Your task to perform on an android device: empty trash in google photos Image 0: 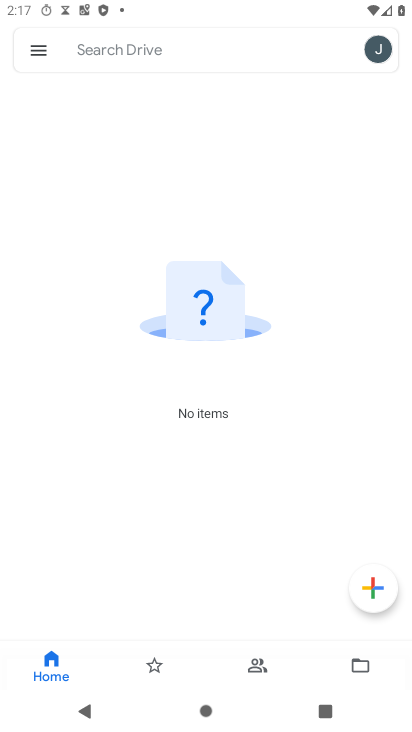
Step 0: press home button
Your task to perform on an android device: empty trash in google photos Image 1: 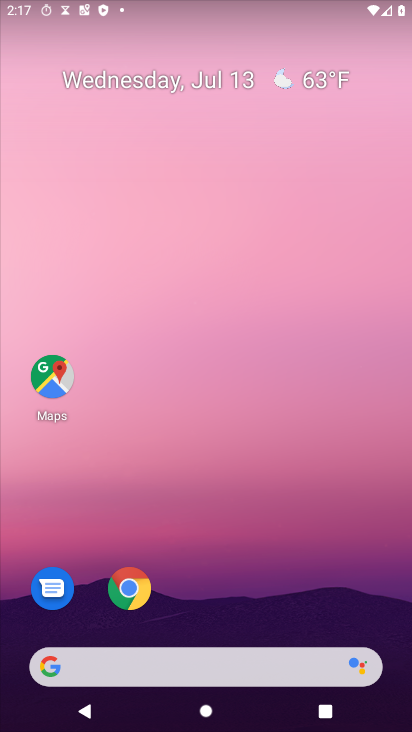
Step 1: drag from (212, 659) to (225, 56)
Your task to perform on an android device: empty trash in google photos Image 2: 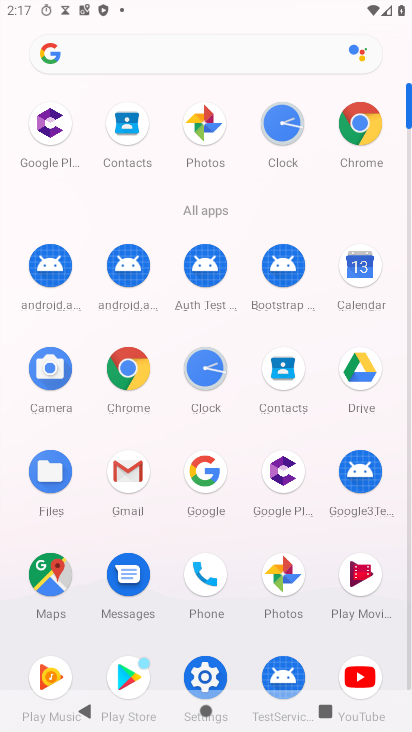
Step 2: click (287, 566)
Your task to perform on an android device: empty trash in google photos Image 3: 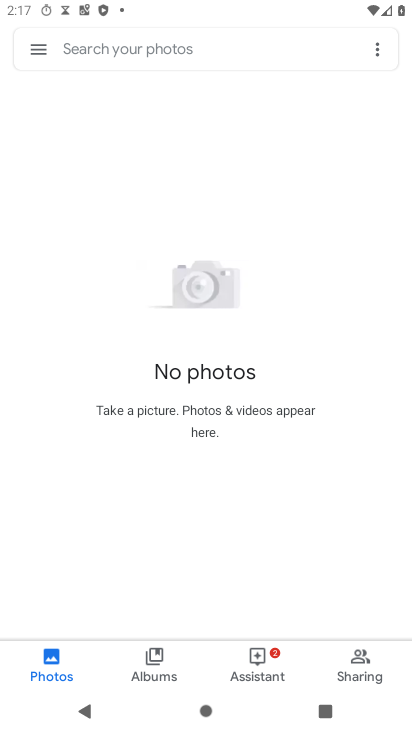
Step 3: click (34, 43)
Your task to perform on an android device: empty trash in google photos Image 4: 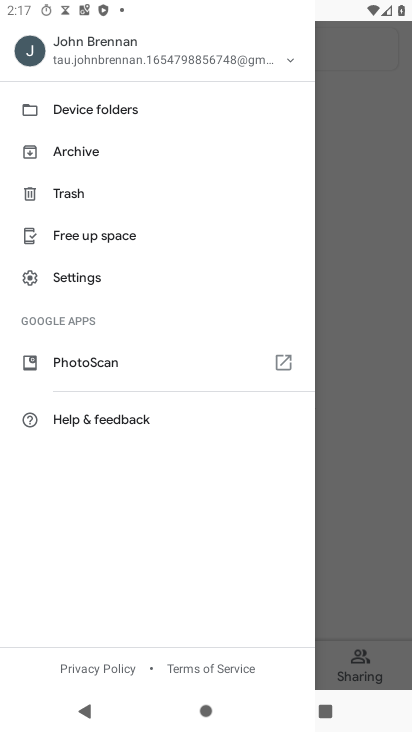
Step 4: click (74, 196)
Your task to perform on an android device: empty trash in google photos Image 5: 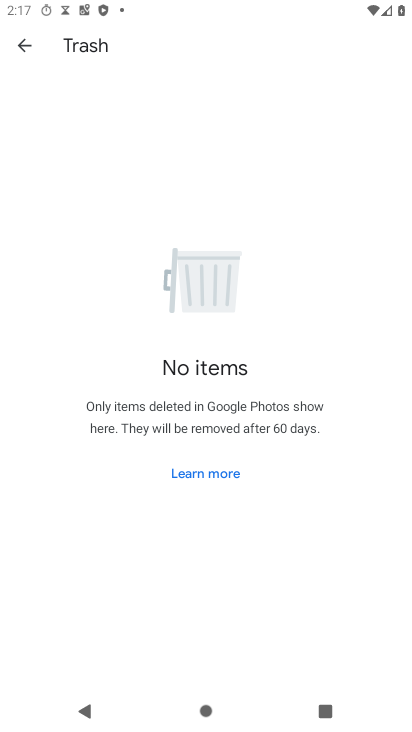
Step 5: task complete